Your task to perform on an android device: turn on the 24-hour format for clock Image 0: 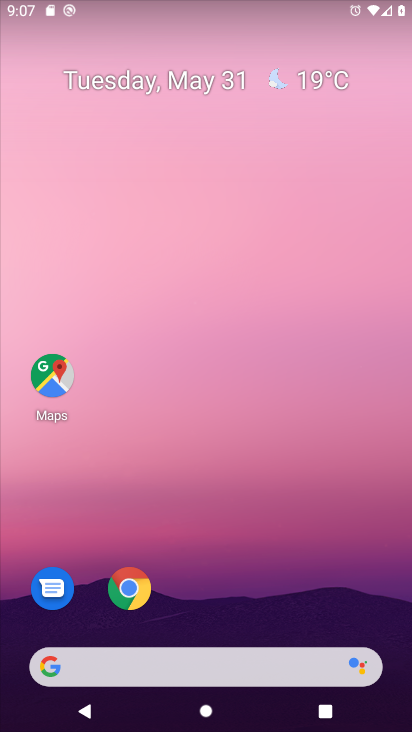
Step 0: press home button
Your task to perform on an android device: turn on the 24-hour format for clock Image 1: 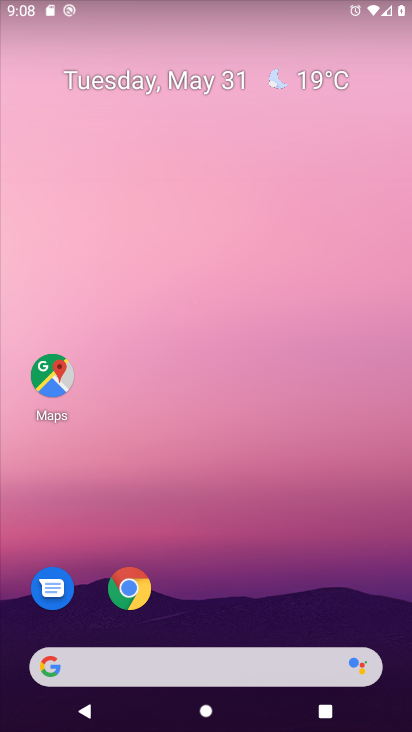
Step 1: drag from (148, 669) to (320, 111)
Your task to perform on an android device: turn on the 24-hour format for clock Image 2: 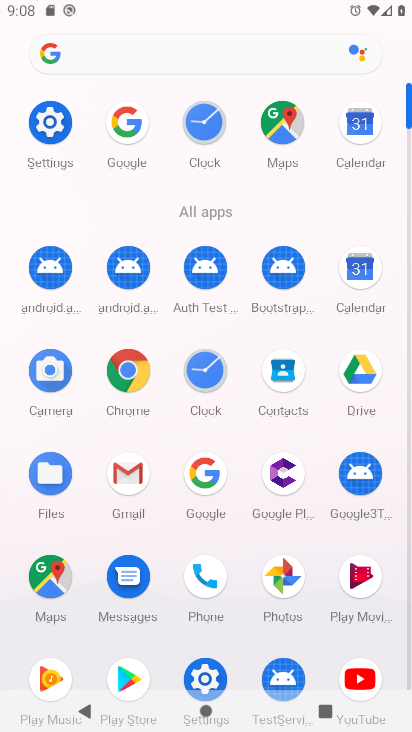
Step 2: click (210, 379)
Your task to perform on an android device: turn on the 24-hour format for clock Image 3: 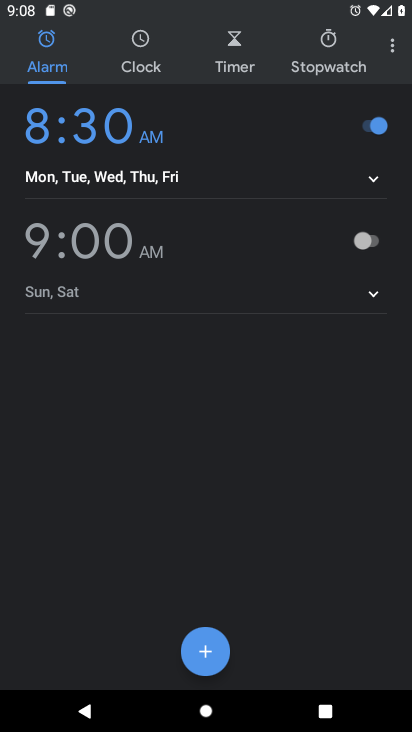
Step 3: click (394, 47)
Your task to perform on an android device: turn on the 24-hour format for clock Image 4: 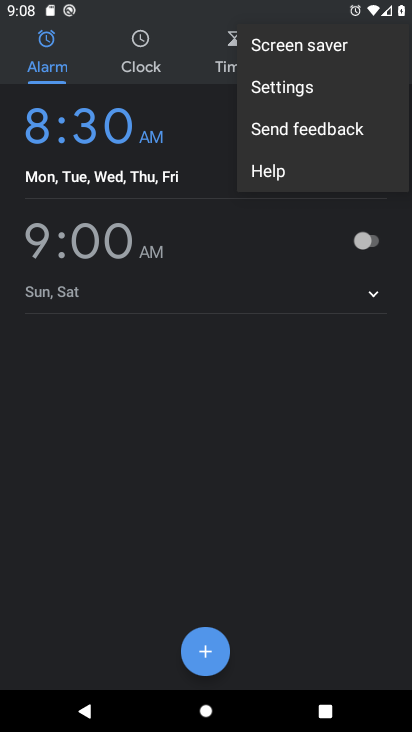
Step 4: click (274, 90)
Your task to perform on an android device: turn on the 24-hour format for clock Image 5: 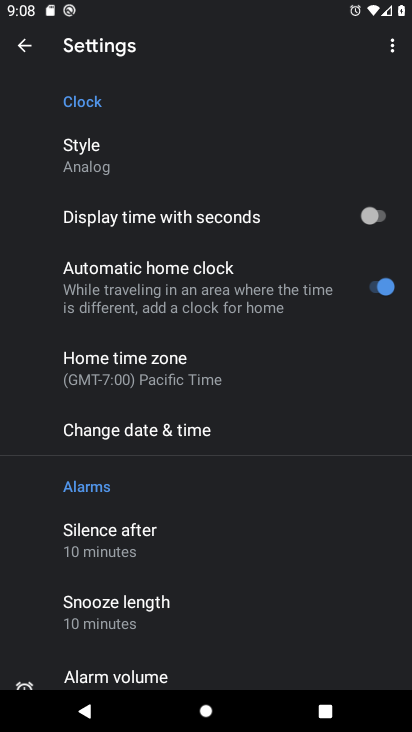
Step 5: click (153, 433)
Your task to perform on an android device: turn on the 24-hour format for clock Image 6: 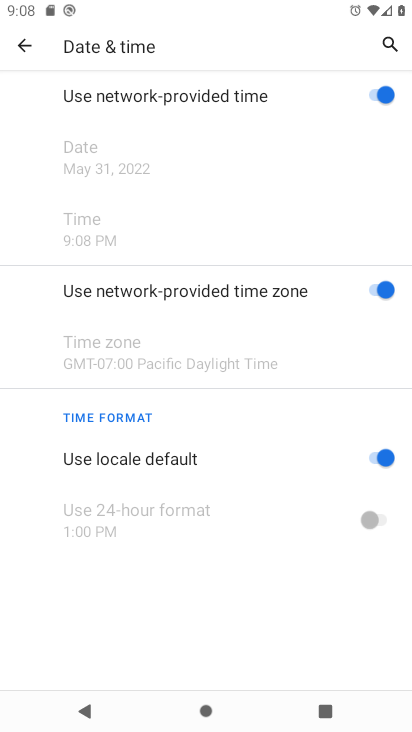
Step 6: click (373, 452)
Your task to perform on an android device: turn on the 24-hour format for clock Image 7: 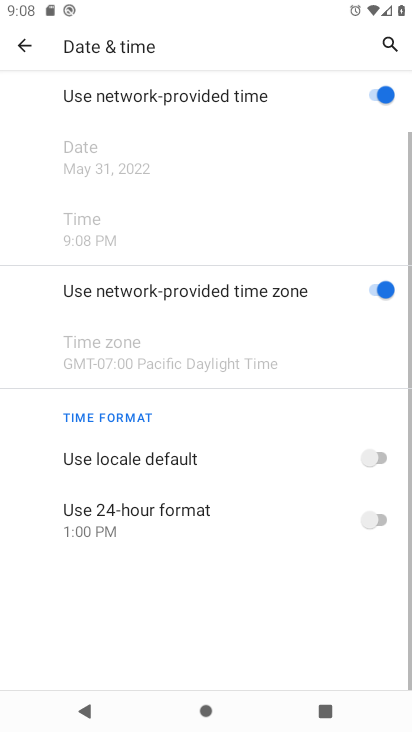
Step 7: click (385, 515)
Your task to perform on an android device: turn on the 24-hour format for clock Image 8: 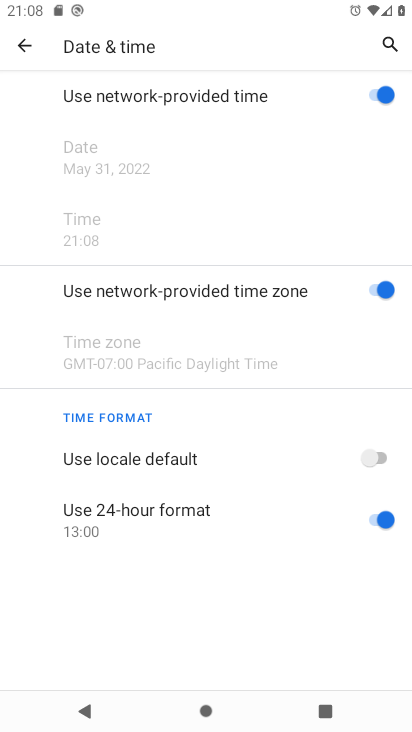
Step 8: task complete